Your task to perform on an android device: What is the recent news? Image 0: 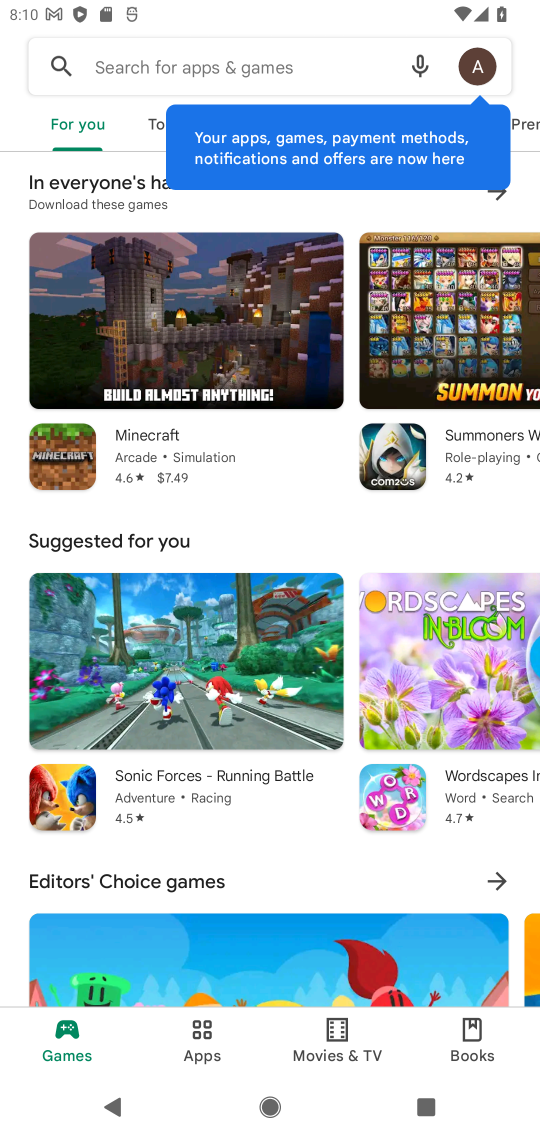
Step 0: press home button
Your task to perform on an android device: What is the recent news? Image 1: 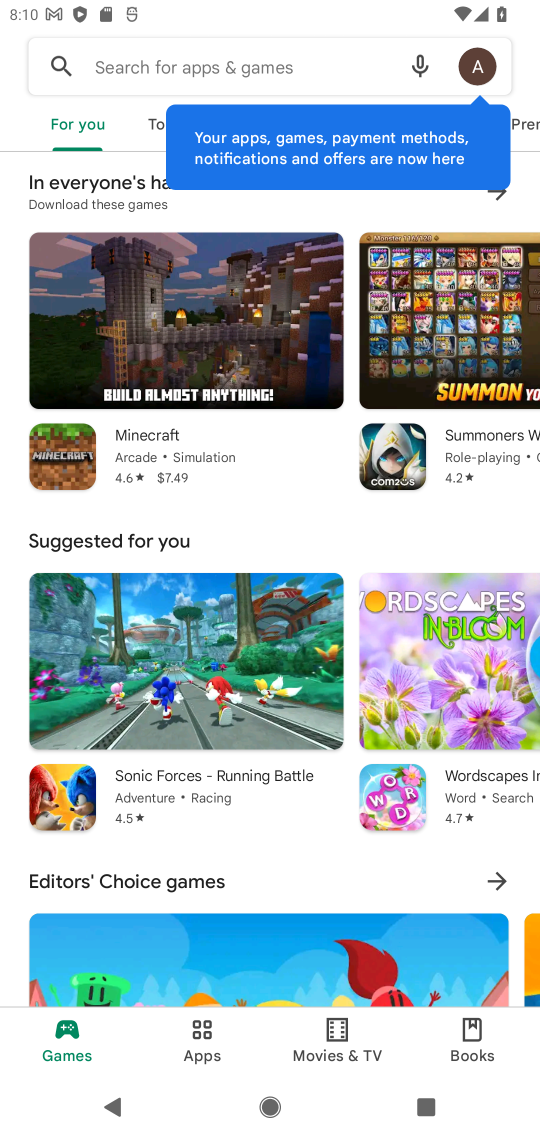
Step 1: press home button
Your task to perform on an android device: What is the recent news? Image 2: 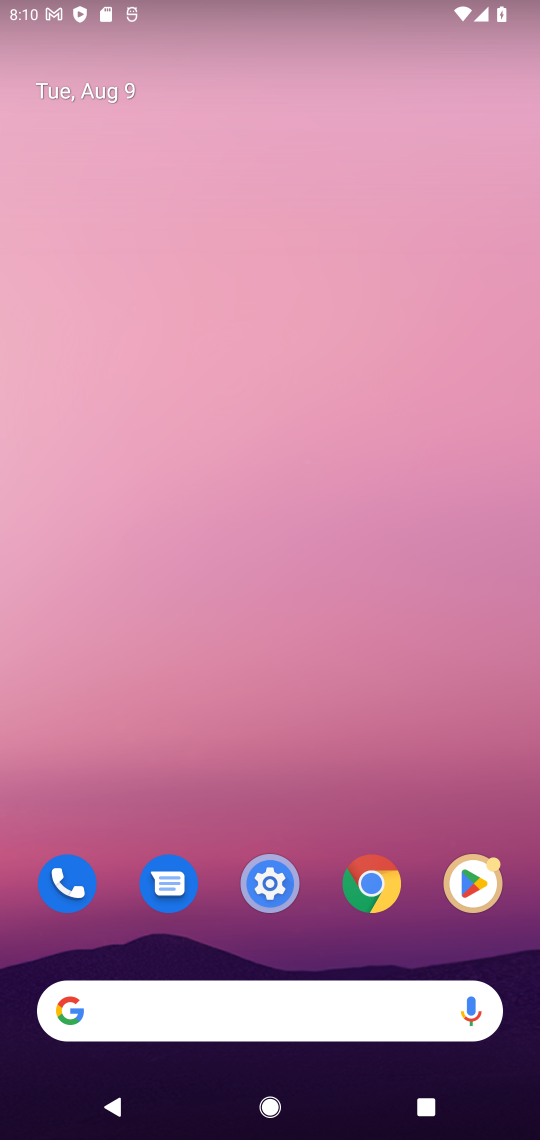
Step 2: drag from (272, 740) to (280, 1)
Your task to perform on an android device: What is the recent news? Image 3: 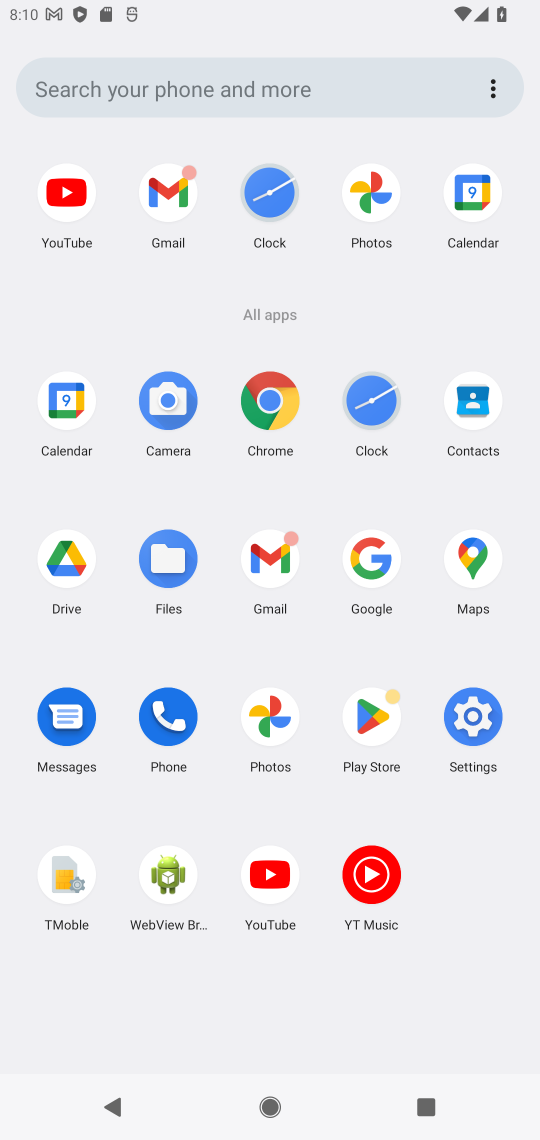
Step 3: click (266, 407)
Your task to perform on an android device: What is the recent news? Image 4: 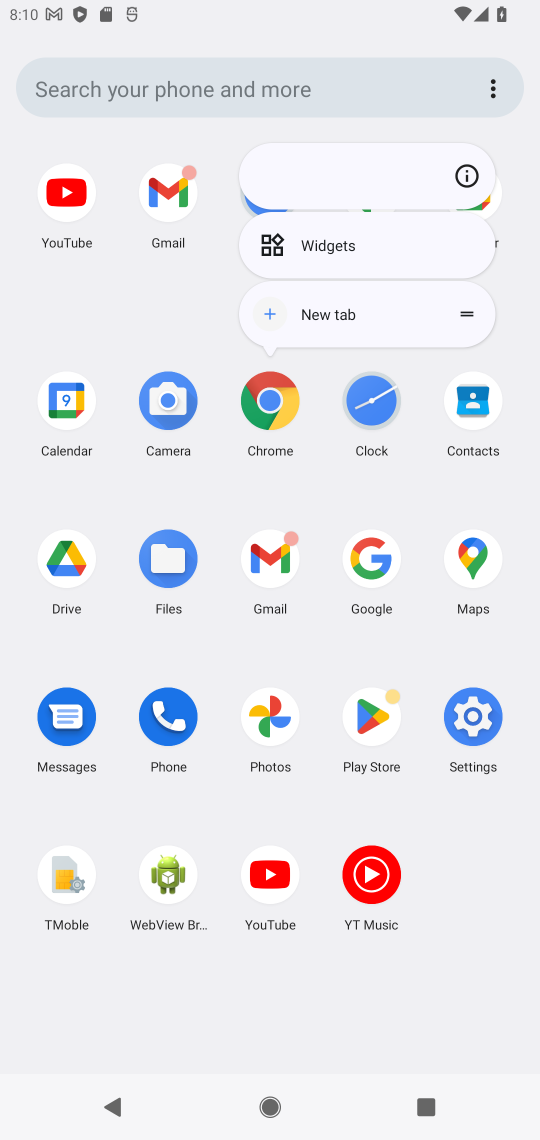
Step 4: click (272, 399)
Your task to perform on an android device: What is the recent news? Image 5: 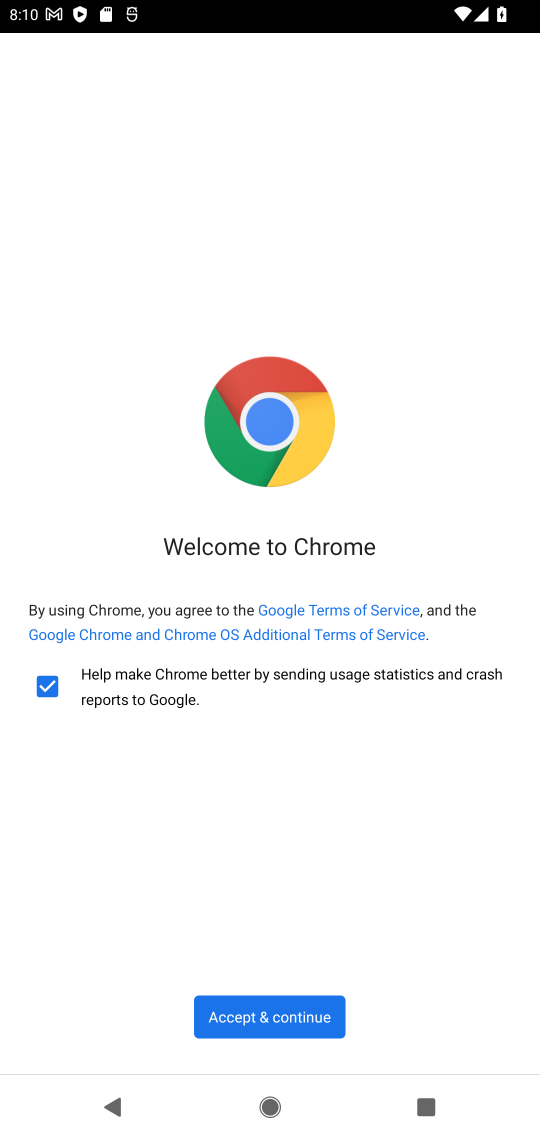
Step 5: click (312, 1031)
Your task to perform on an android device: What is the recent news? Image 6: 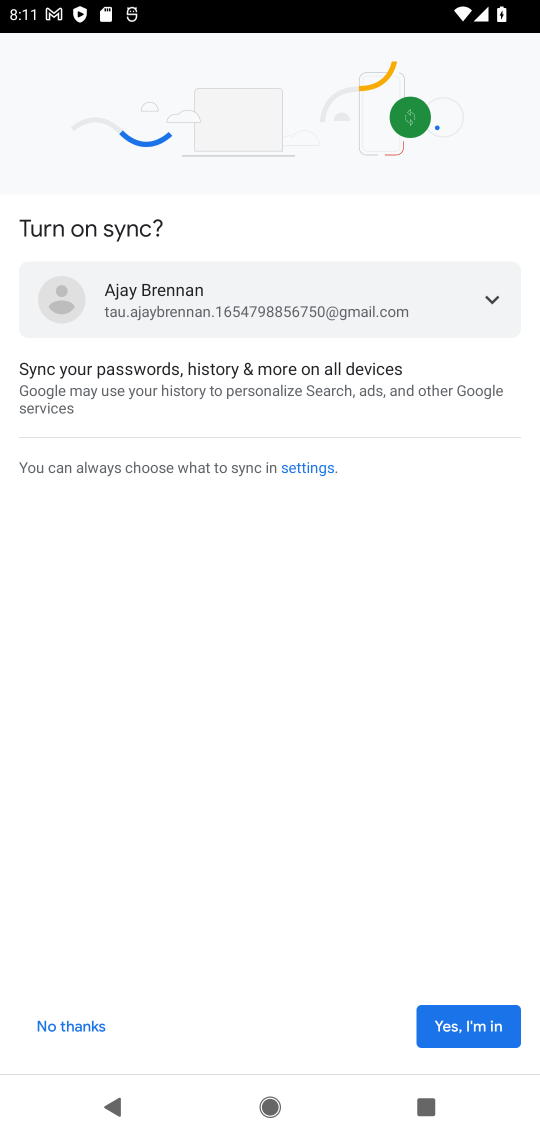
Step 6: click (486, 1022)
Your task to perform on an android device: What is the recent news? Image 7: 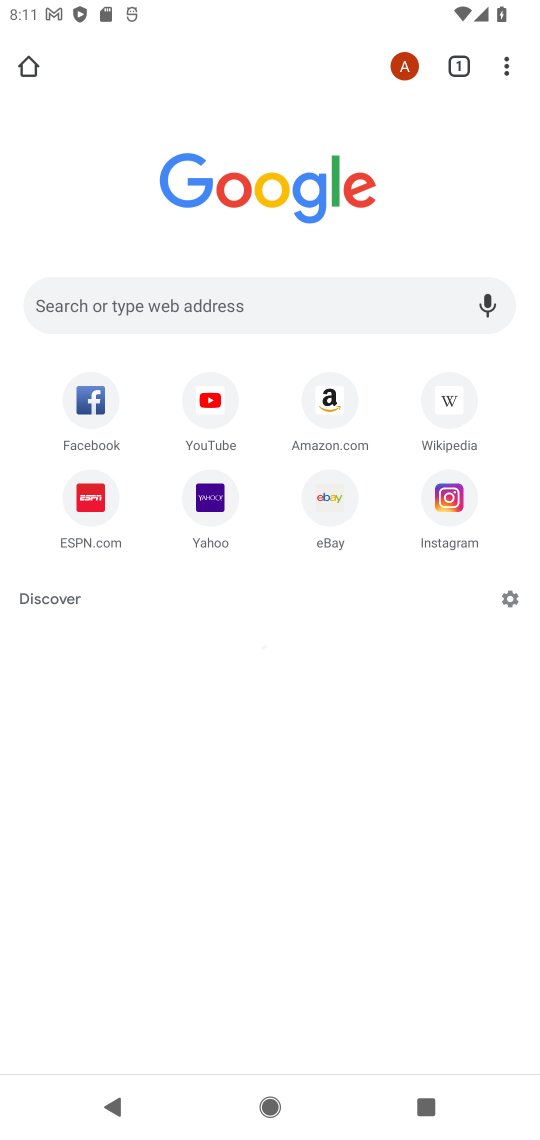
Step 7: click (363, 284)
Your task to perform on an android device: What is the recent news? Image 8: 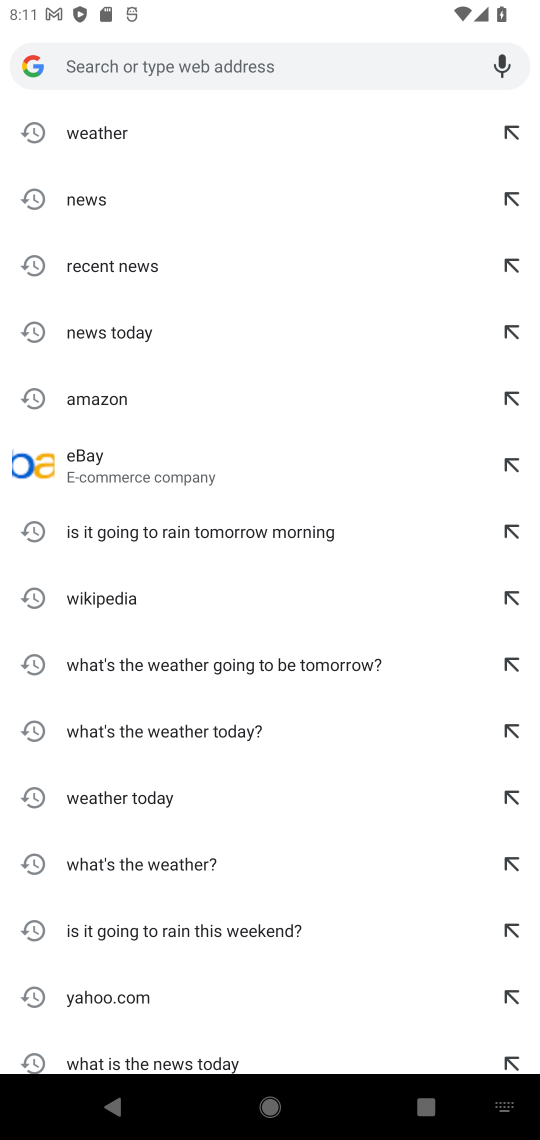
Step 8: click (121, 182)
Your task to perform on an android device: What is the recent news? Image 9: 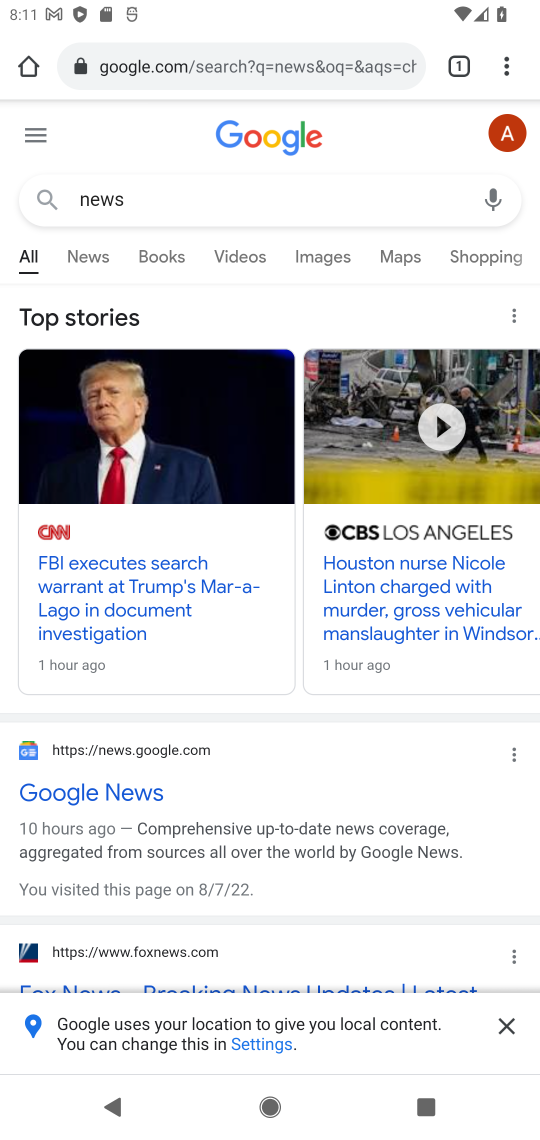
Step 9: click (132, 782)
Your task to perform on an android device: What is the recent news? Image 10: 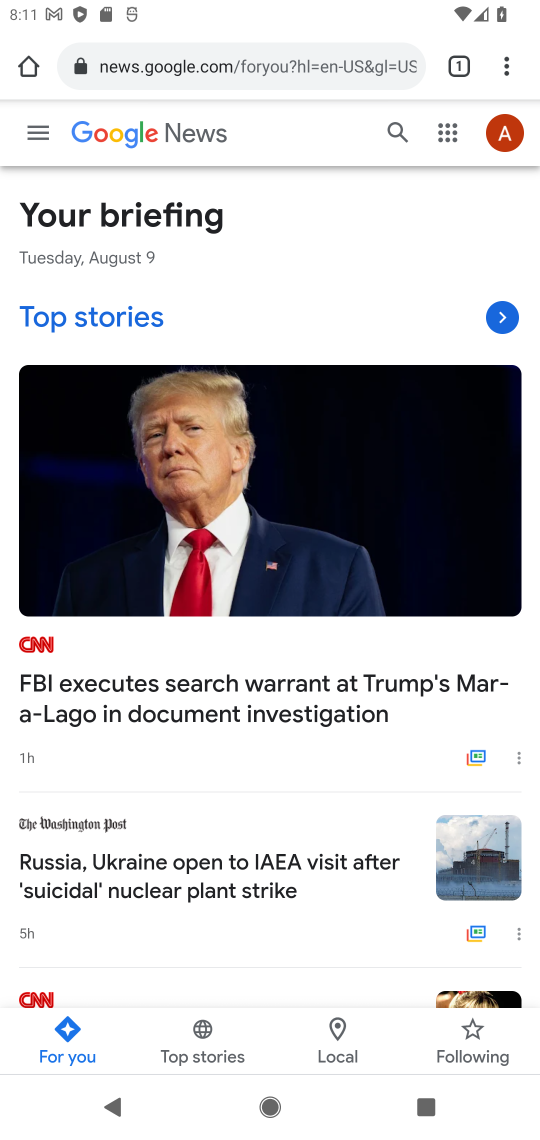
Step 10: task complete